Your task to perform on an android device: turn off smart reply in the gmail app Image 0: 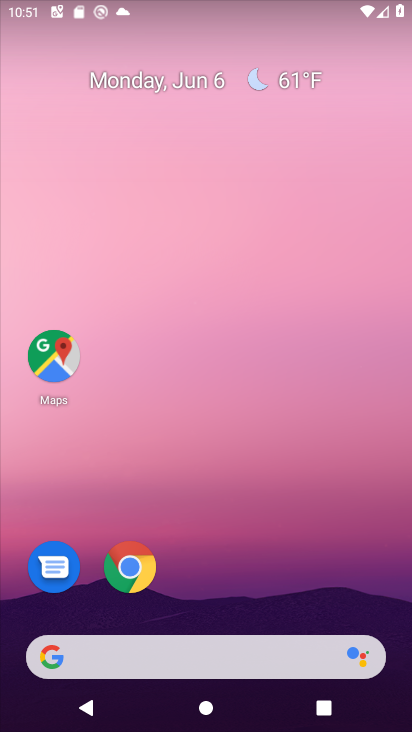
Step 0: drag from (244, 692) to (235, 97)
Your task to perform on an android device: turn off smart reply in the gmail app Image 1: 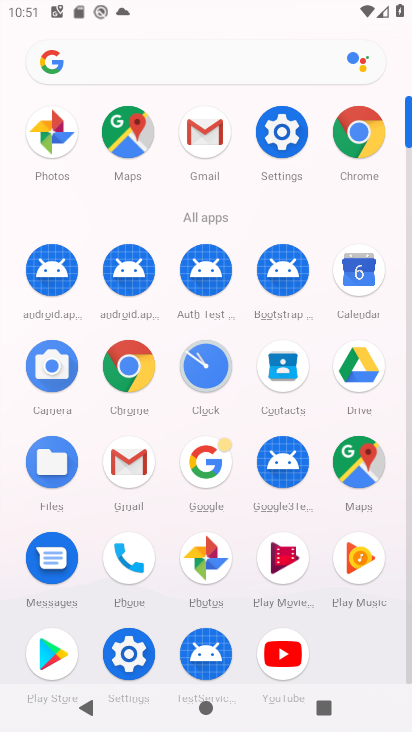
Step 1: click (125, 459)
Your task to perform on an android device: turn off smart reply in the gmail app Image 2: 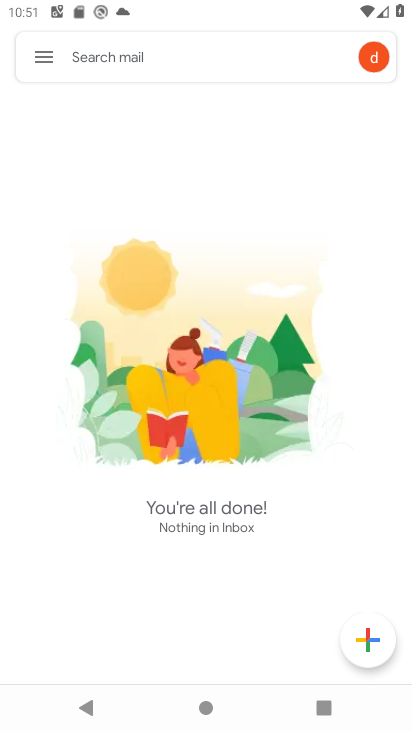
Step 2: click (41, 53)
Your task to perform on an android device: turn off smart reply in the gmail app Image 3: 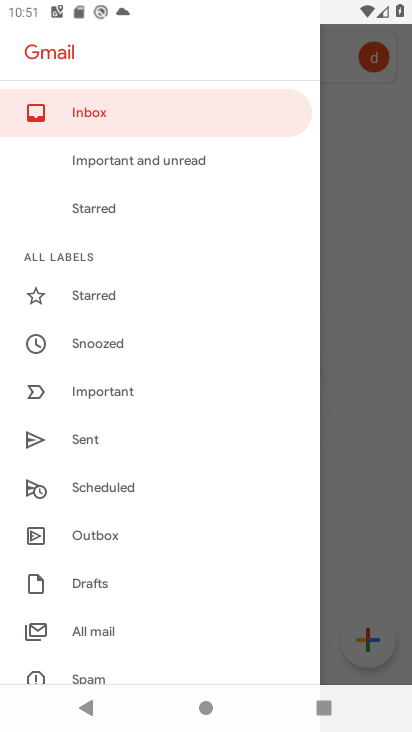
Step 3: drag from (148, 658) to (147, 313)
Your task to perform on an android device: turn off smart reply in the gmail app Image 4: 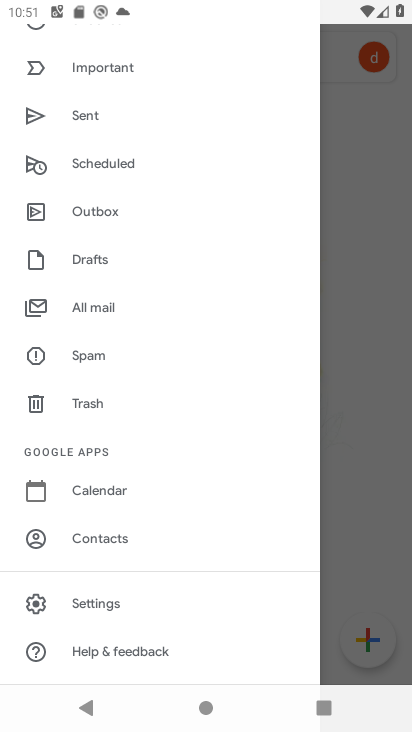
Step 4: click (99, 598)
Your task to perform on an android device: turn off smart reply in the gmail app Image 5: 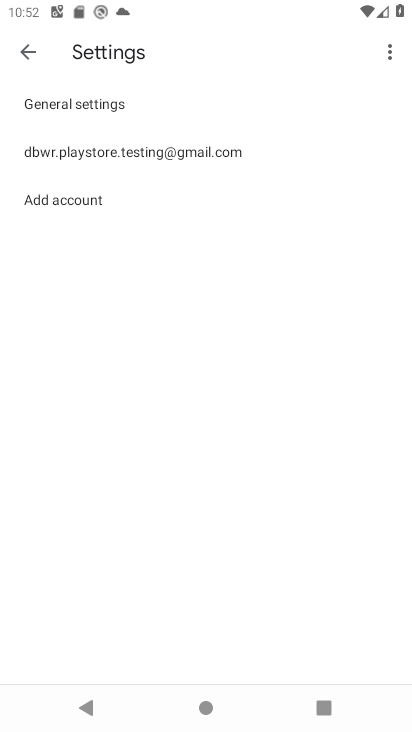
Step 5: click (110, 156)
Your task to perform on an android device: turn off smart reply in the gmail app Image 6: 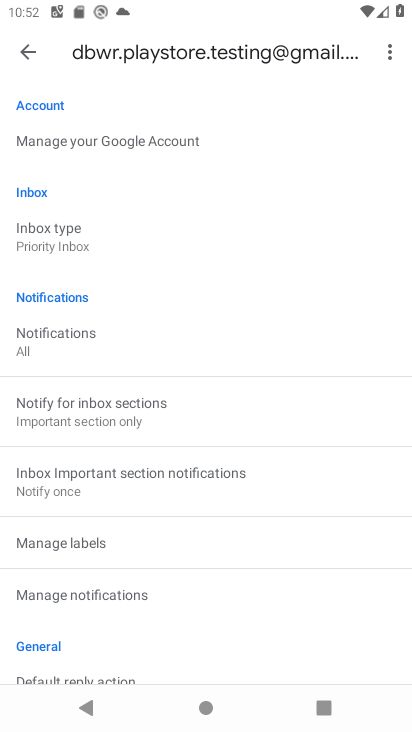
Step 6: drag from (129, 630) to (125, 216)
Your task to perform on an android device: turn off smart reply in the gmail app Image 7: 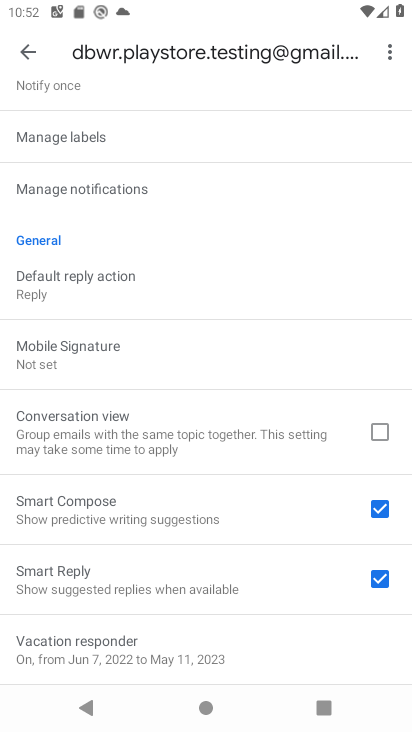
Step 7: drag from (128, 638) to (154, 226)
Your task to perform on an android device: turn off smart reply in the gmail app Image 8: 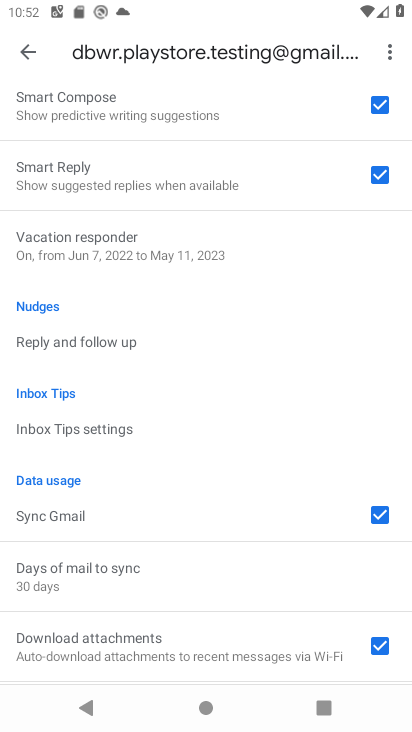
Step 8: click (126, 603)
Your task to perform on an android device: turn off smart reply in the gmail app Image 9: 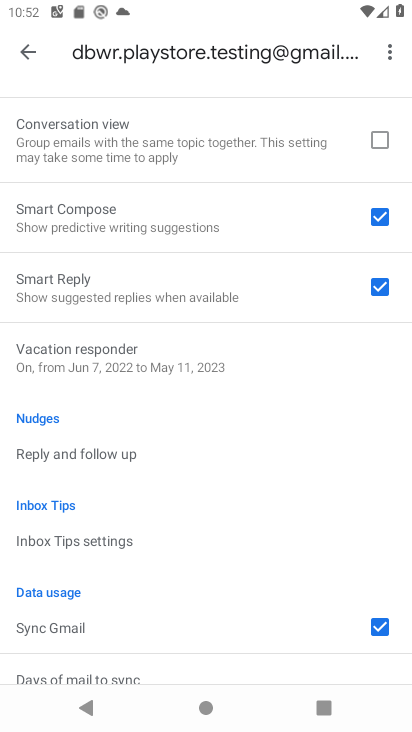
Step 9: click (380, 287)
Your task to perform on an android device: turn off smart reply in the gmail app Image 10: 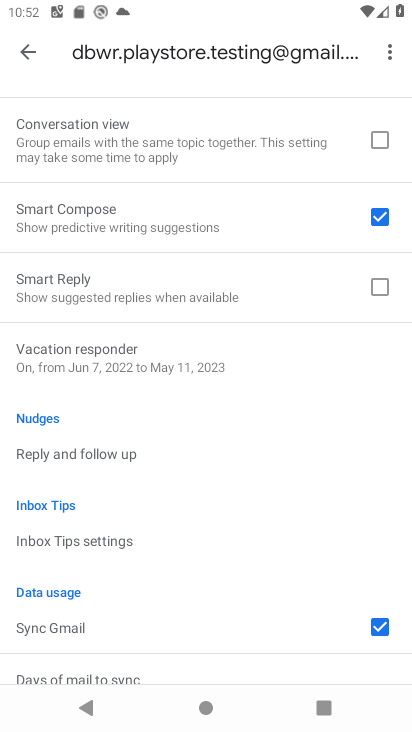
Step 10: task complete